Your task to perform on an android device: remove spam from my inbox in the gmail app Image 0: 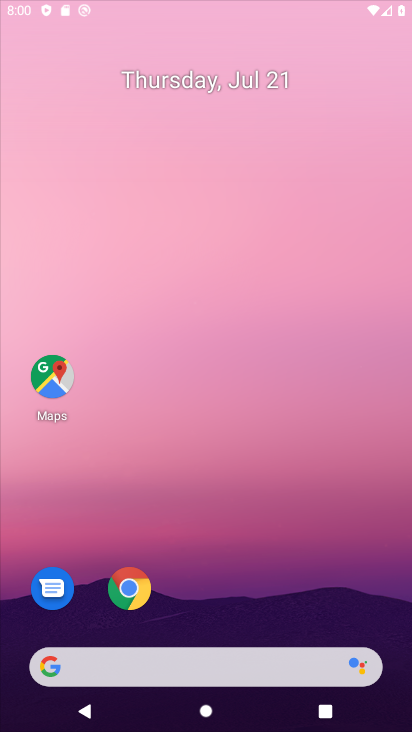
Step 0: drag from (219, 676) to (185, 163)
Your task to perform on an android device: remove spam from my inbox in the gmail app Image 1: 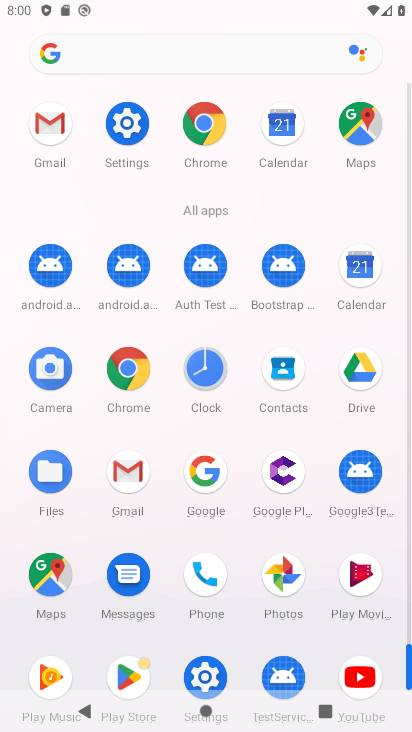
Step 1: click (124, 471)
Your task to perform on an android device: remove spam from my inbox in the gmail app Image 2: 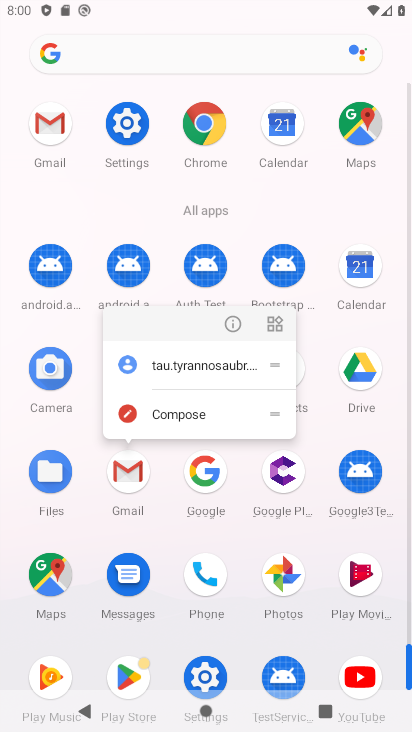
Step 2: click (122, 468)
Your task to perform on an android device: remove spam from my inbox in the gmail app Image 3: 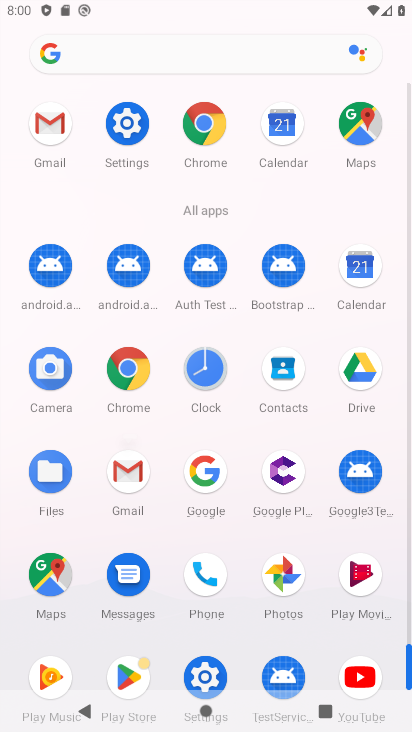
Step 3: click (121, 466)
Your task to perform on an android device: remove spam from my inbox in the gmail app Image 4: 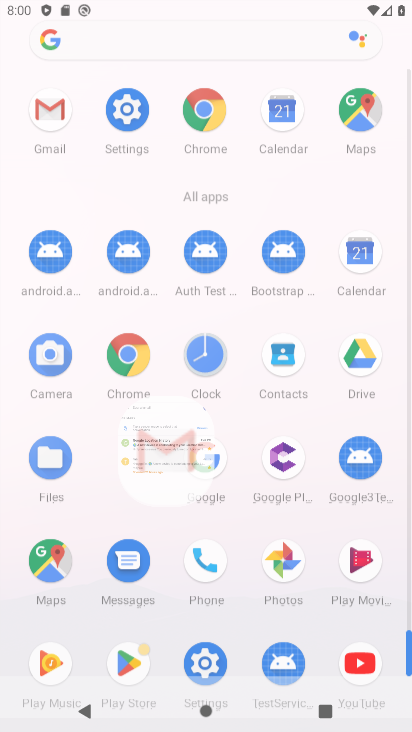
Step 4: click (121, 466)
Your task to perform on an android device: remove spam from my inbox in the gmail app Image 5: 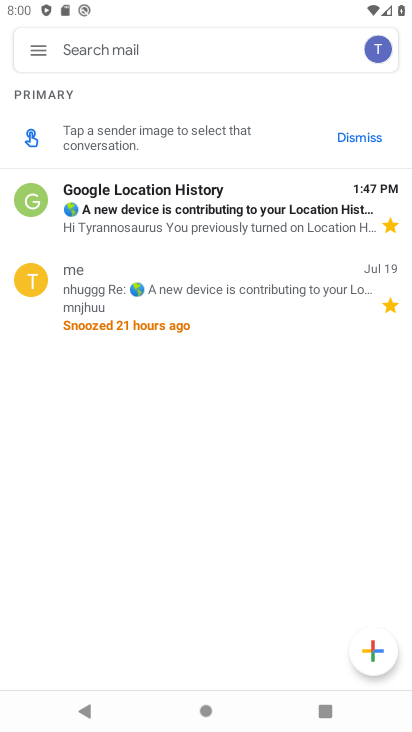
Step 5: click (43, 38)
Your task to perform on an android device: remove spam from my inbox in the gmail app Image 6: 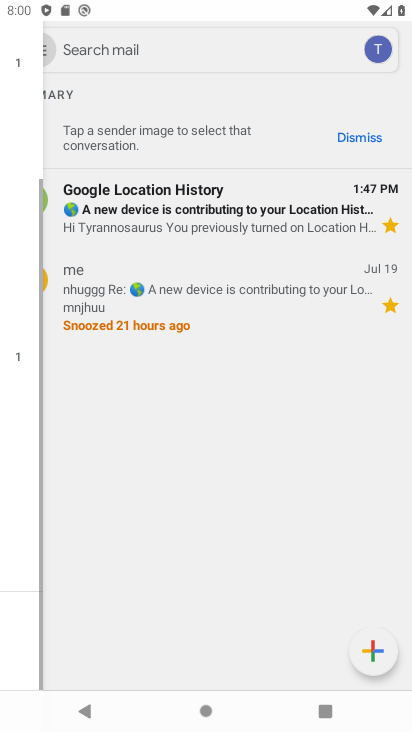
Step 6: click (42, 39)
Your task to perform on an android device: remove spam from my inbox in the gmail app Image 7: 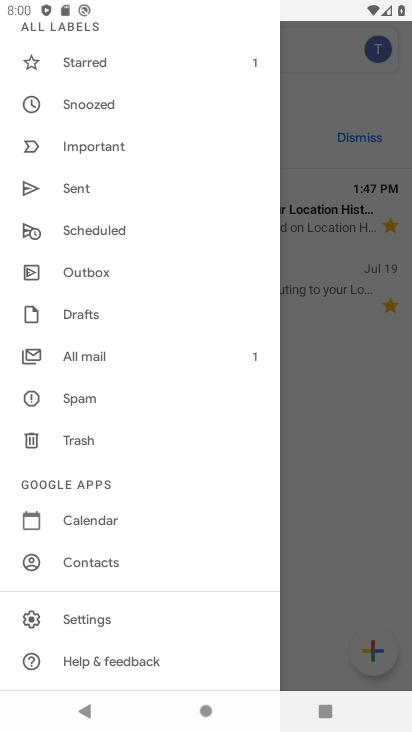
Step 7: click (84, 399)
Your task to perform on an android device: remove spam from my inbox in the gmail app Image 8: 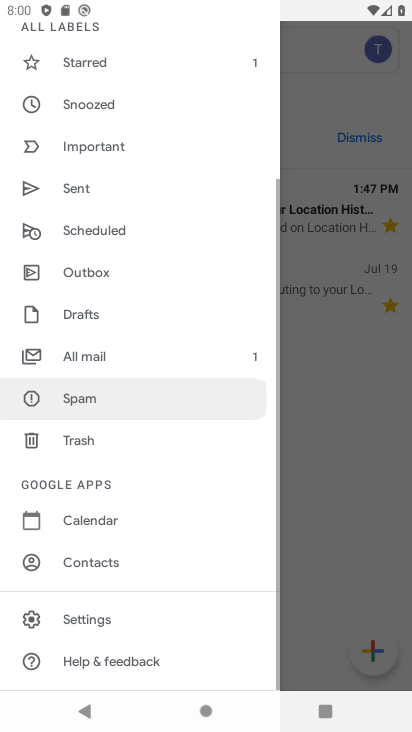
Step 8: click (84, 398)
Your task to perform on an android device: remove spam from my inbox in the gmail app Image 9: 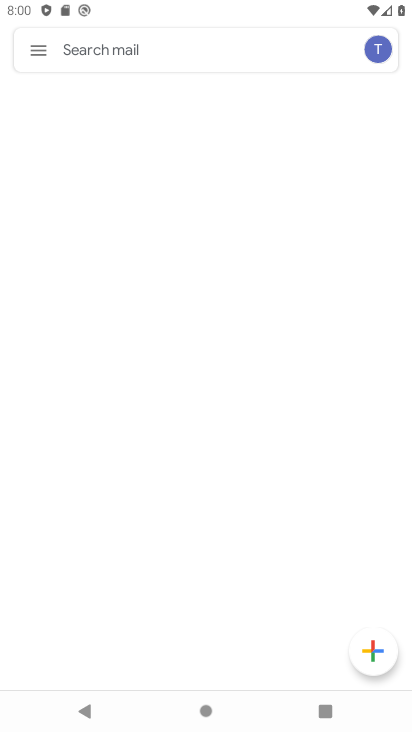
Step 9: click (87, 401)
Your task to perform on an android device: remove spam from my inbox in the gmail app Image 10: 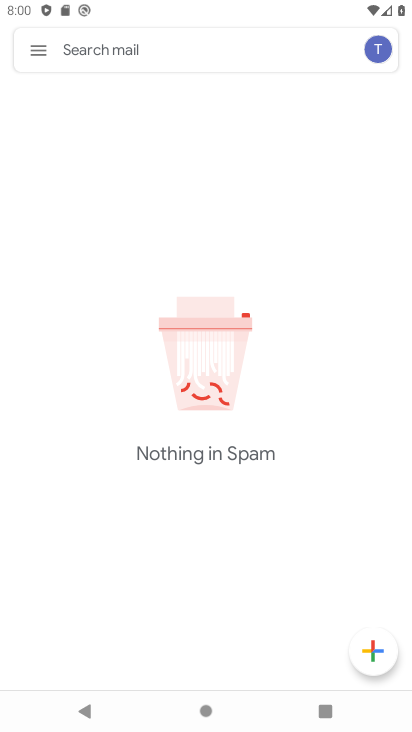
Step 10: task complete